Your task to perform on an android device: change alarm snooze length Image 0: 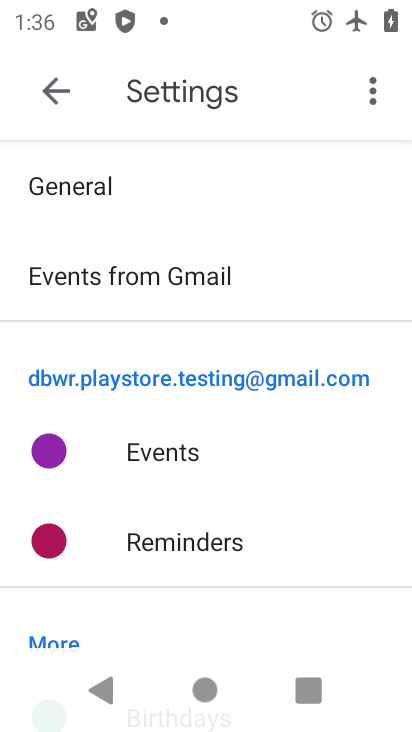
Step 0: press home button
Your task to perform on an android device: change alarm snooze length Image 1: 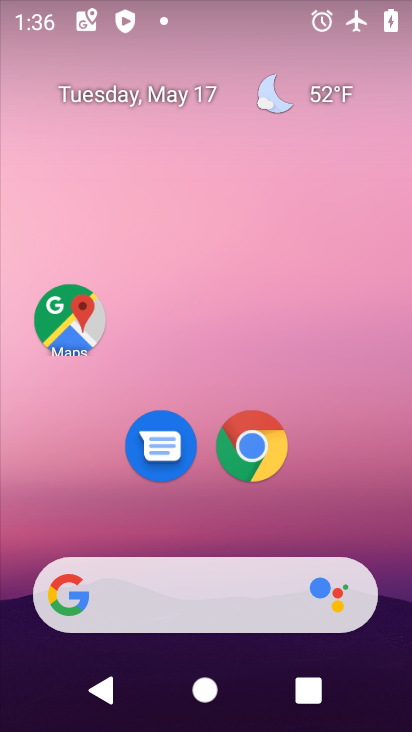
Step 1: drag from (206, 518) to (244, 175)
Your task to perform on an android device: change alarm snooze length Image 2: 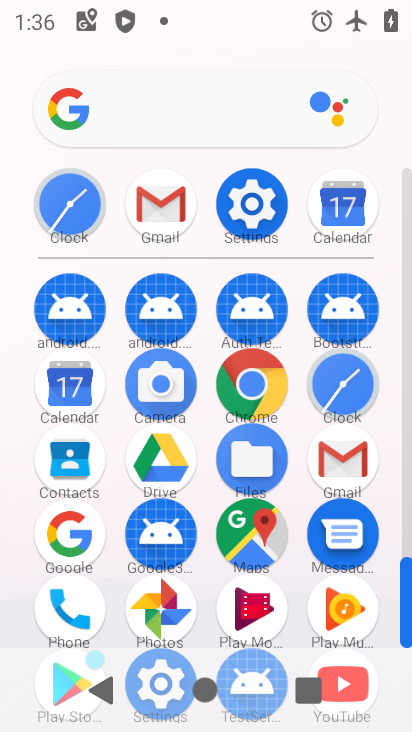
Step 2: drag from (107, 588) to (138, 328)
Your task to perform on an android device: change alarm snooze length Image 3: 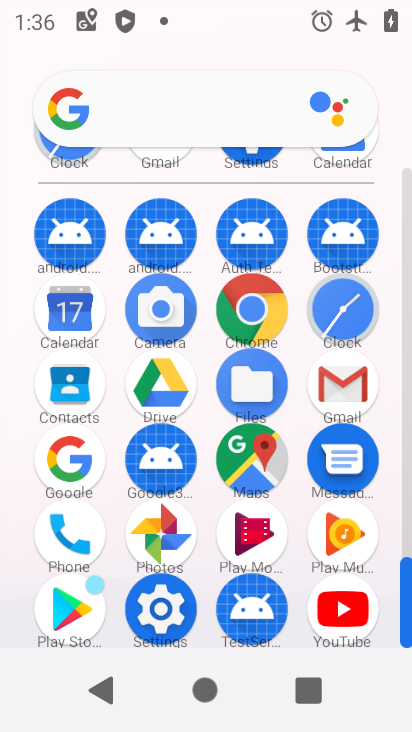
Step 3: click (338, 309)
Your task to perform on an android device: change alarm snooze length Image 4: 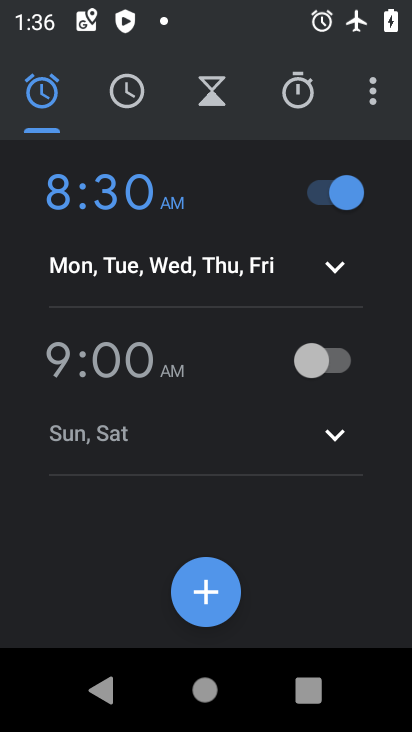
Step 4: click (370, 93)
Your task to perform on an android device: change alarm snooze length Image 5: 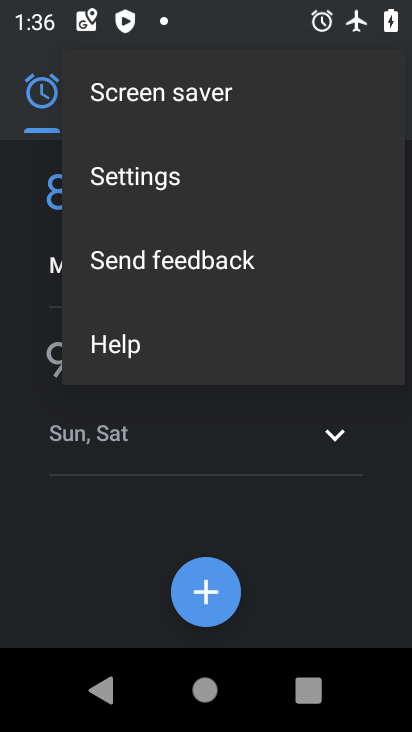
Step 5: click (194, 170)
Your task to perform on an android device: change alarm snooze length Image 6: 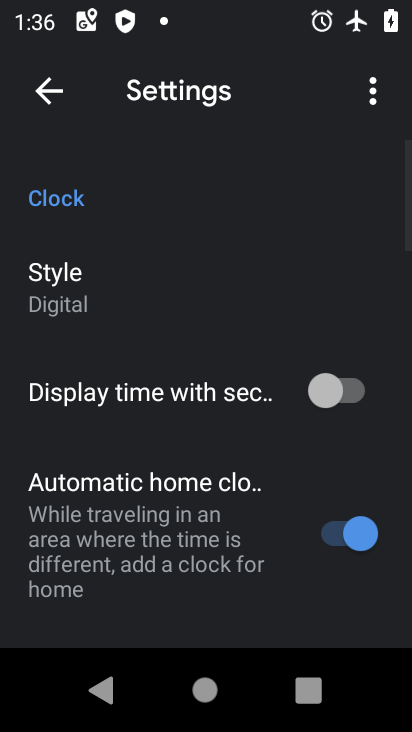
Step 6: drag from (144, 597) to (170, 222)
Your task to perform on an android device: change alarm snooze length Image 7: 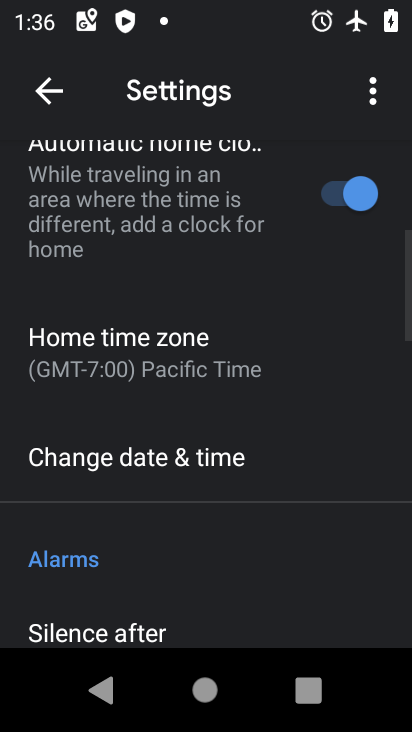
Step 7: drag from (149, 594) to (192, 322)
Your task to perform on an android device: change alarm snooze length Image 8: 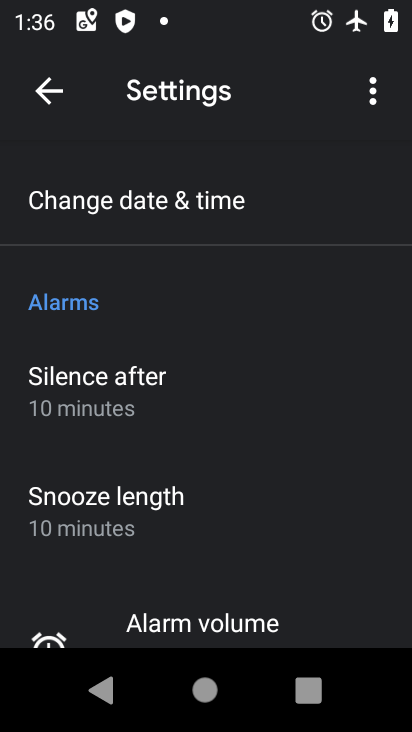
Step 8: click (108, 519)
Your task to perform on an android device: change alarm snooze length Image 9: 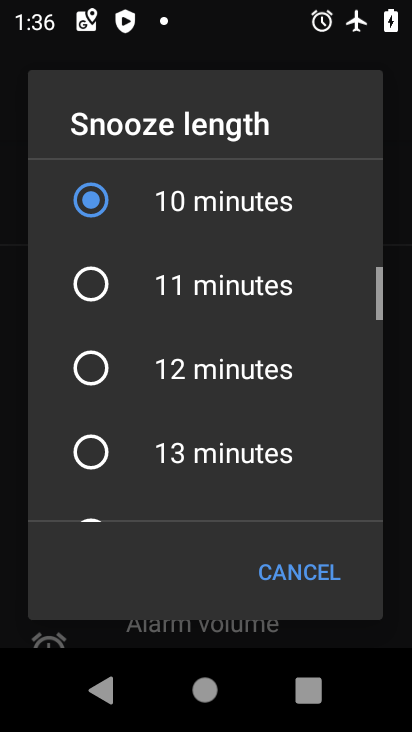
Step 9: click (102, 295)
Your task to perform on an android device: change alarm snooze length Image 10: 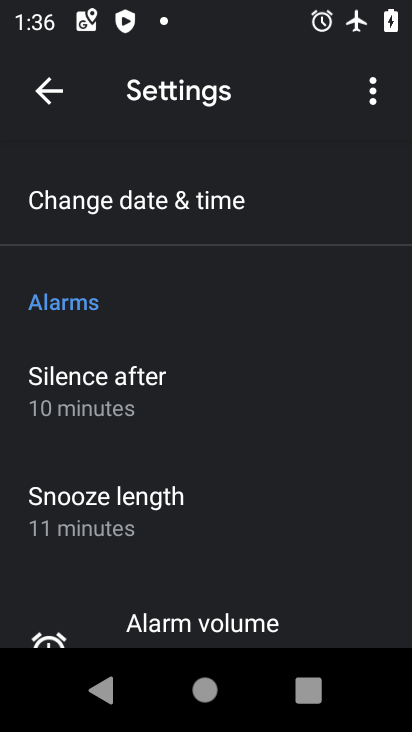
Step 10: task complete